Your task to perform on an android device: Open Yahoo.com Image 0: 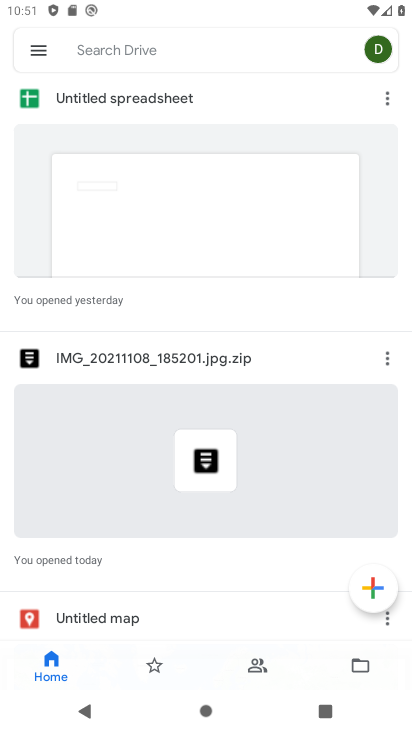
Step 0: press home button
Your task to perform on an android device: Open Yahoo.com Image 1: 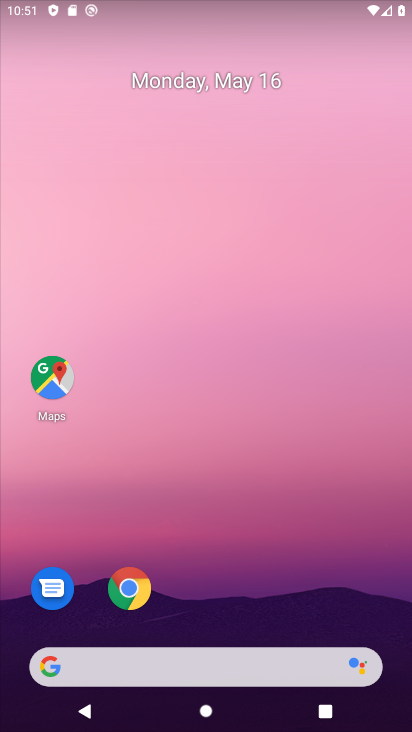
Step 1: drag from (370, 602) to (376, 153)
Your task to perform on an android device: Open Yahoo.com Image 2: 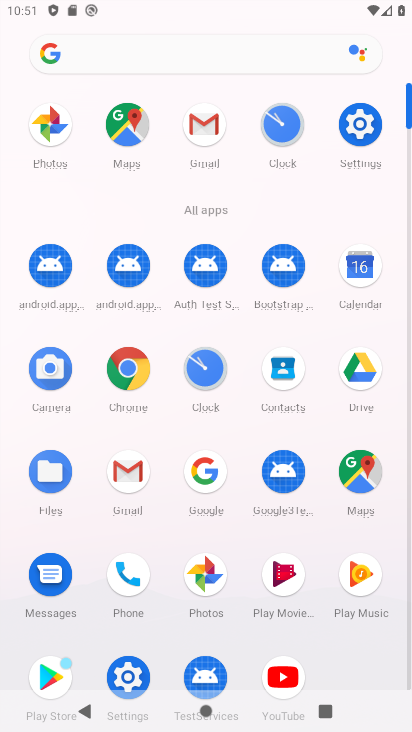
Step 2: click (146, 368)
Your task to perform on an android device: Open Yahoo.com Image 3: 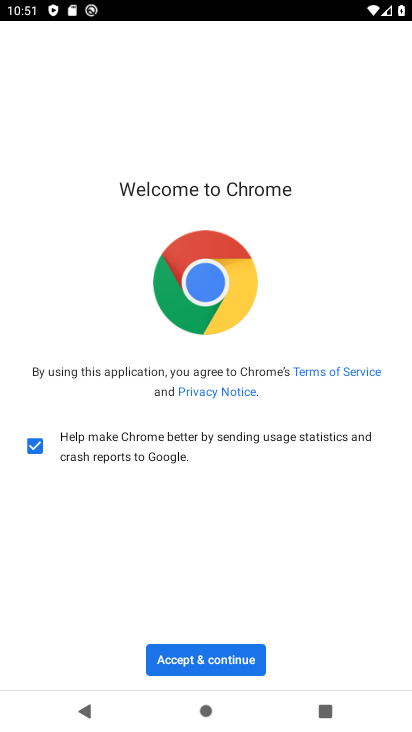
Step 3: click (224, 666)
Your task to perform on an android device: Open Yahoo.com Image 4: 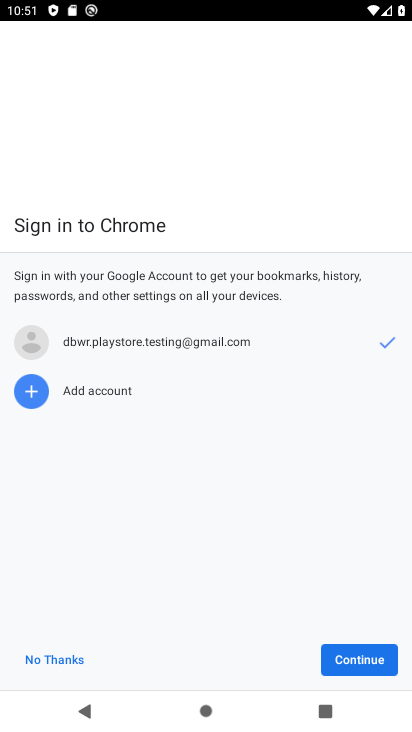
Step 4: click (343, 652)
Your task to perform on an android device: Open Yahoo.com Image 5: 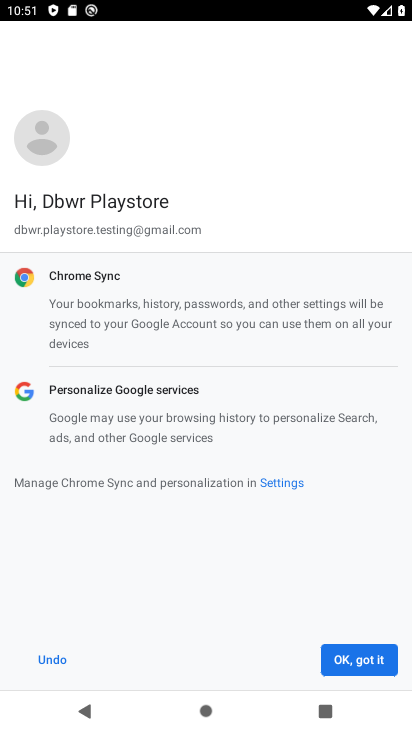
Step 5: click (348, 663)
Your task to perform on an android device: Open Yahoo.com Image 6: 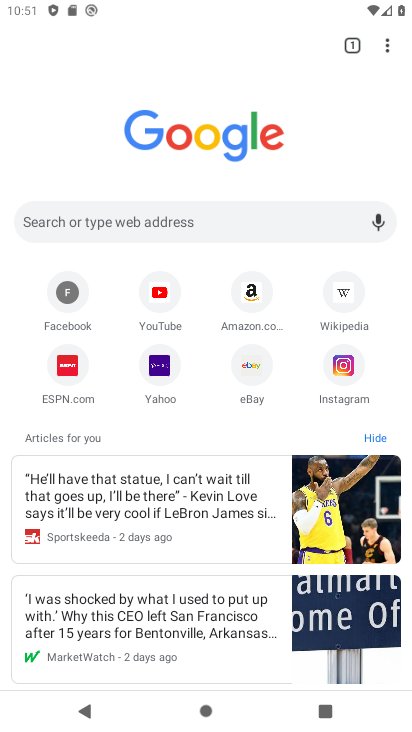
Step 6: click (156, 384)
Your task to perform on an android device: Open Yahoo.com Image 7: 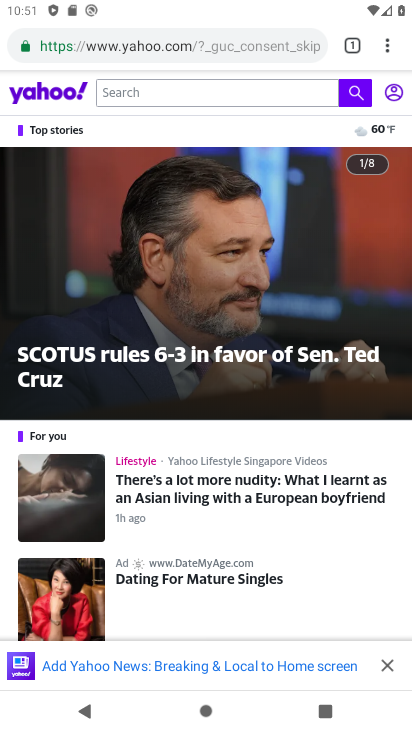
Step 7: task complete